Your task to perform on an android device: allow cookies in the chrome app Image 0: 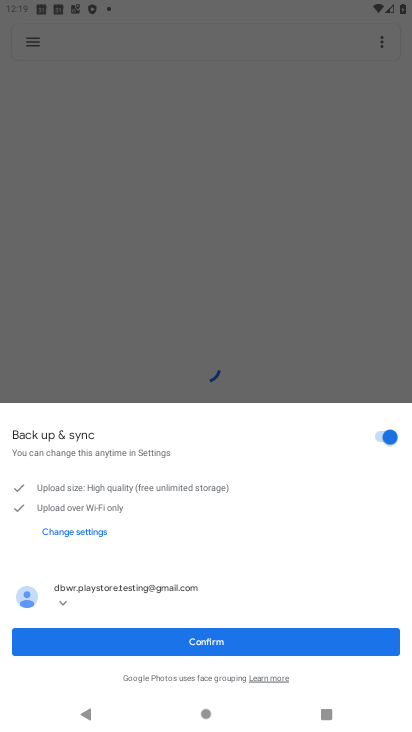
Step 0: press home button
Your task to perform on an android device: allow cookies in the chrome app Image 1: 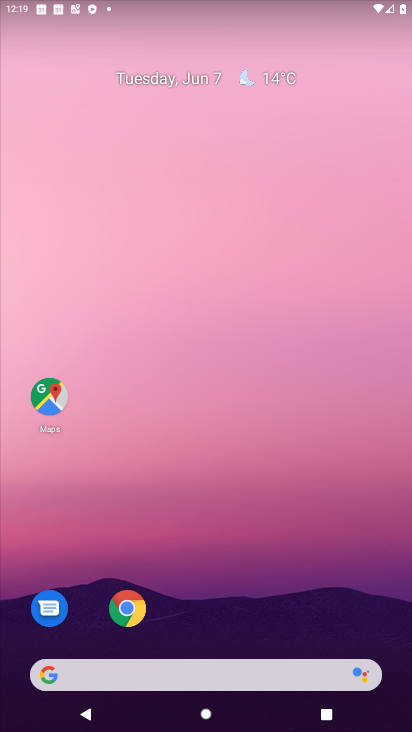
Step 1: click (142, 615)
Your task to perform on an android device: allow cookies in the chrome app Image 2: 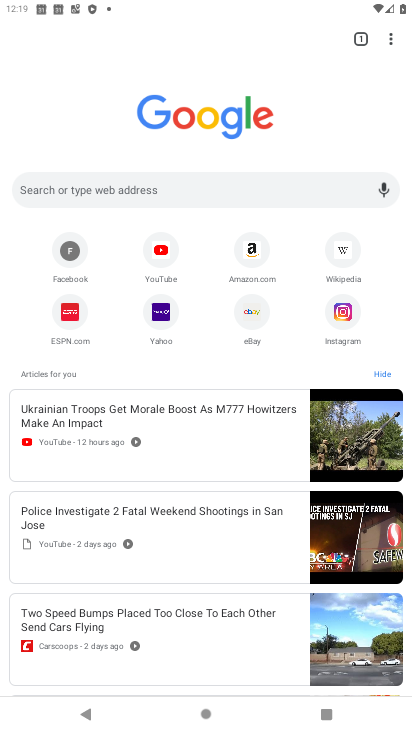
Step 2: click (387, 35)
Your task to perform on an android device: allow cookies in the chrome app Image 3: 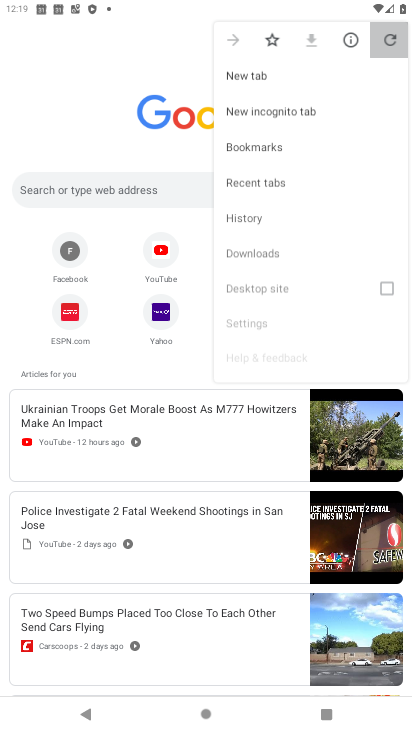
Step 3: drag from (387, 36) to (295, 322)
Your task to perform on an android device: allow cookies in the chrome app Image 4: 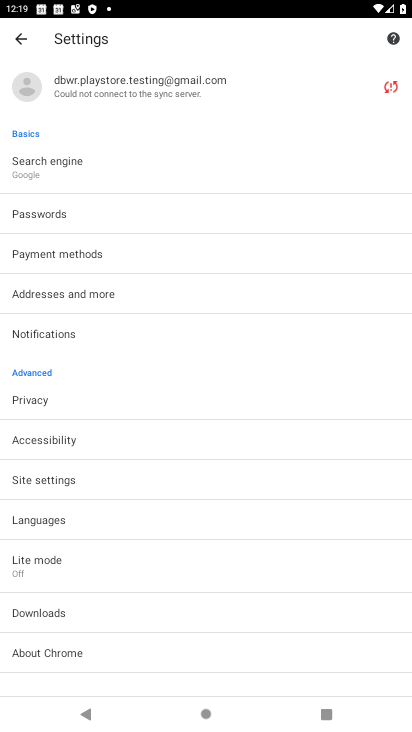
Step 4: drag from (391, 37) to (404, 421)
Your task to perform on an android device: allow cookies in the chrome app Image 5: 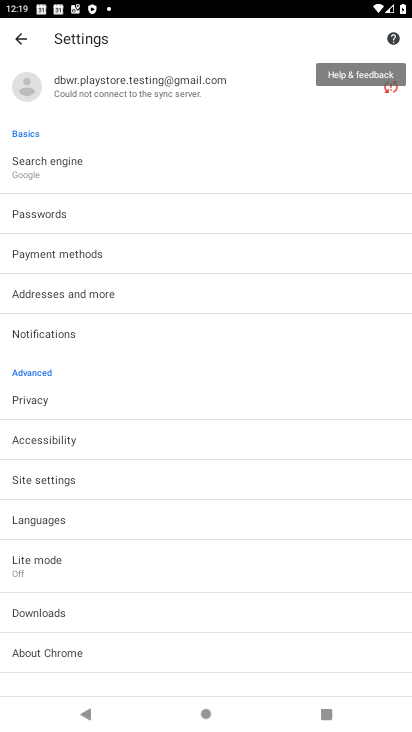
Step 5: click (97, 483)
Your task to perform on an android device: allow cookies in the chrome app Image 6: 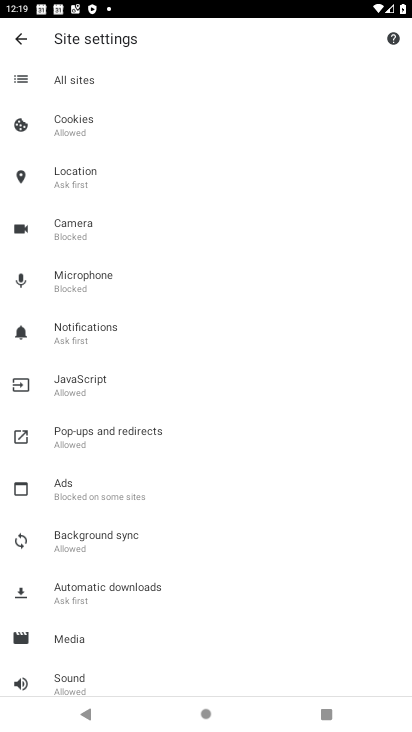
Step 6: click (143, 120)
Your task to perform on an android device: allow cookies in the chrome app Image 7: 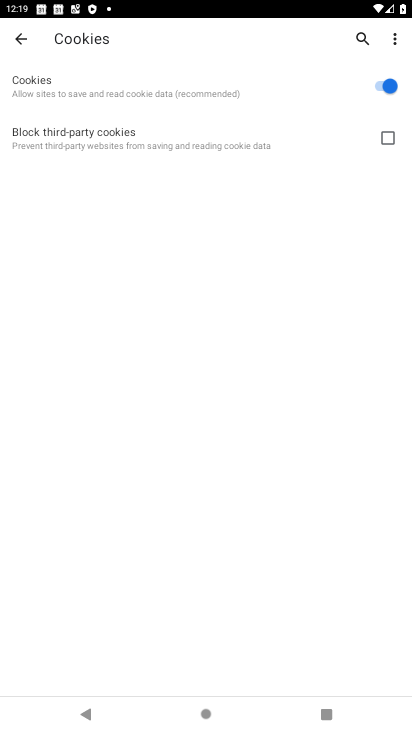
Step 7: task complete